Your task to perform on an android device: open the mobile data screen to see how much data has been used Image 0: 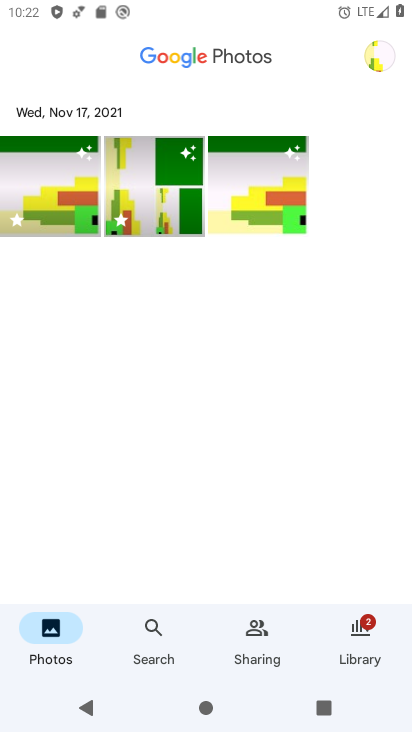
Step 0: press home button
Your task to perform on an android device: open the mobile data screen to see how much data has been used Image 1: 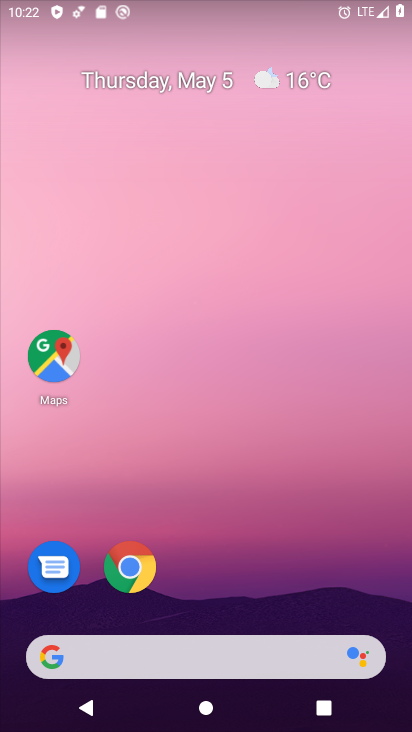
Step 1: drag from (211, 460) to (229, 26)
Your task to perform on an android device: open the mobile data screen to see how much data has been used Image 2: 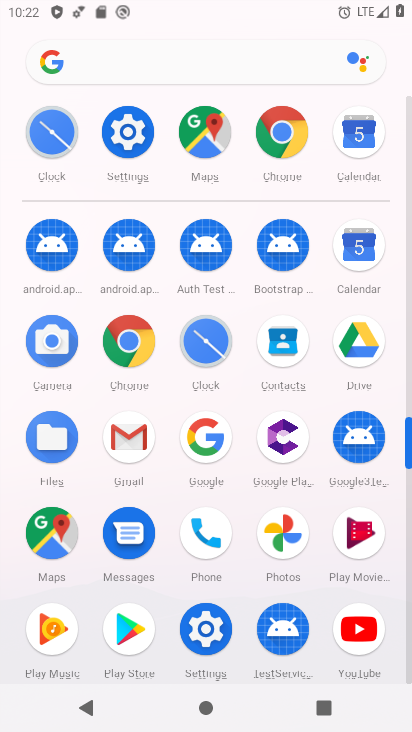
Step 2: click (128, 125)
Your task to perform on an android device: open the mobile data screen to see how much data has been used Image 3: 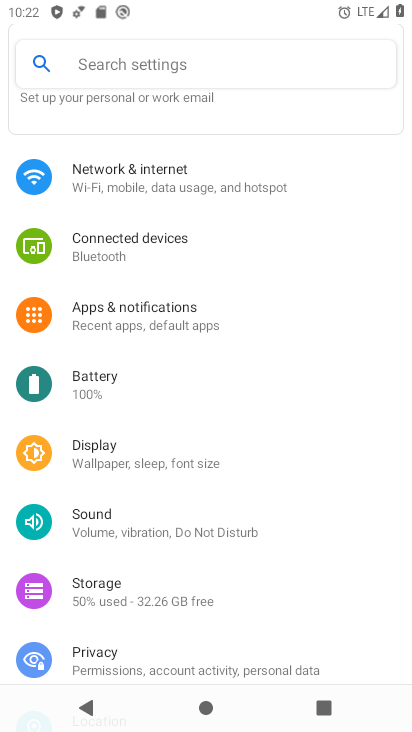
Step 3: click (256, 176)
Your task to perform on an android device: open the mobile data screen to see how much data has been used Image 4: 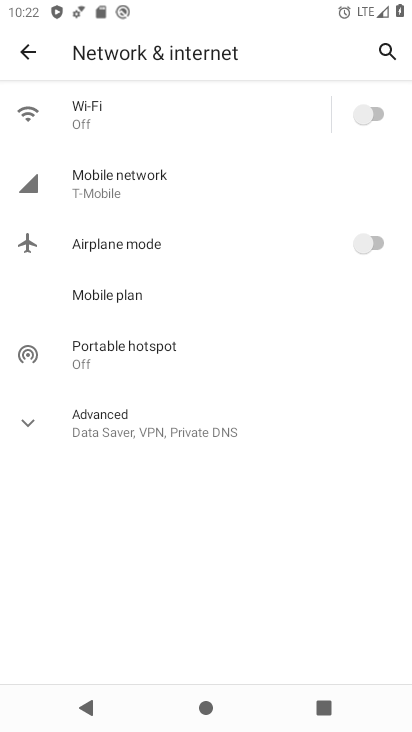
Step 4: click (160, 173)
Your task to perform on an android device: open the mobile data screen to see how much data has been used Image 5: 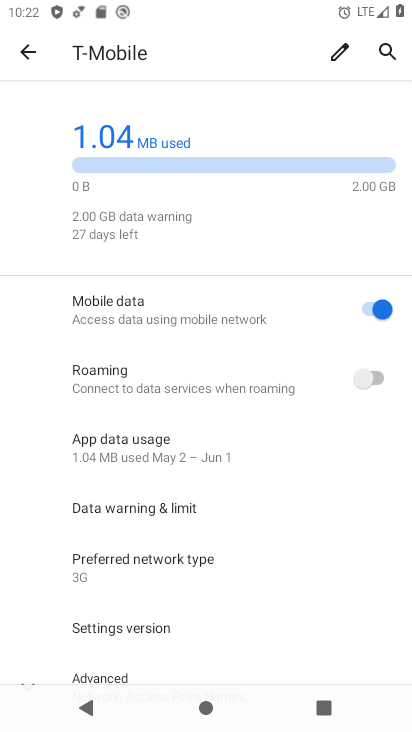
Step 5: task complete